Your task to perform on an android device: Go to calendar. Show me events next week Image 0: 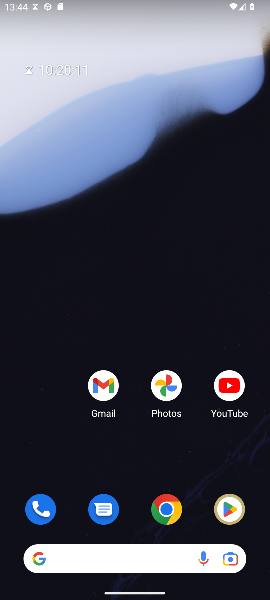
Step 0: press home button
Your task to perform on an android device: Go to calendar. Show me events next week Image 1: 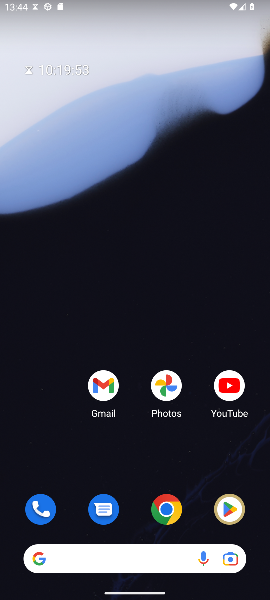
Step 1: drag from (134, 452) to (134, 136)
Your task to perform on an android device: Go to calendar. Show me events next week Image 2: 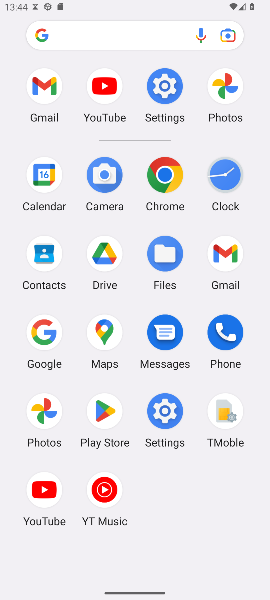
Step 2: click (46, 175)
Your task to perform on an android device: Go to calendar. Show me events next week Image 3: 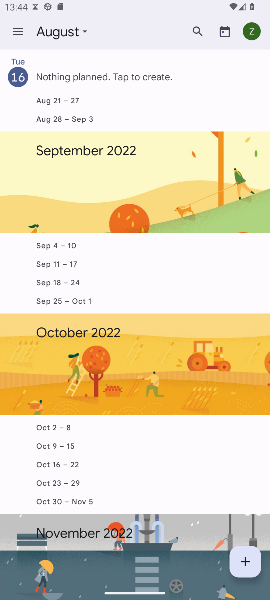
Step 3: click (16, 34)
Your task to perform on an android device: Go to calendar. Show me events next week Image 4: 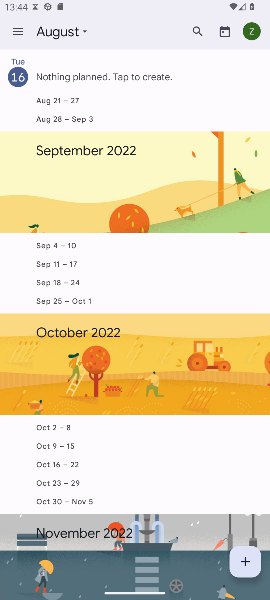
Step 4: click (11, 31)
Your task to perform on an android device: Go to calendar. Show me events next week Image 5: 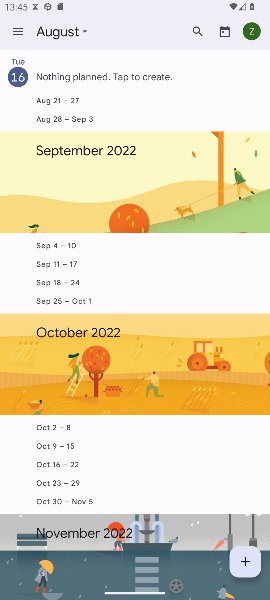
Step 5: click (15, 33)
Your task to perform on an android device: Go to calendar. Show me events next week Image 6: 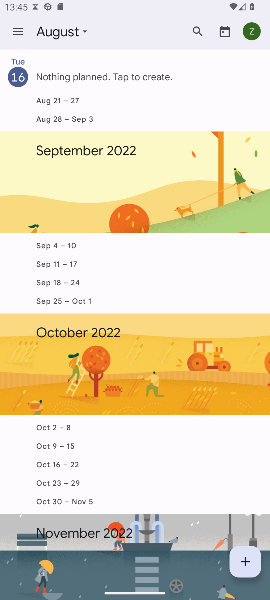
Step 6: click (19, 32)
Your task to perform on an android device: Go to calendar. Show me events next week Image 7: 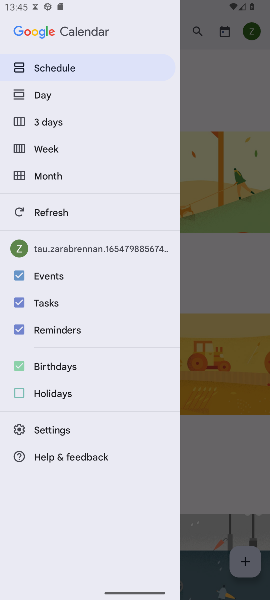
Step 7: click (55, 154)
Your task to perform on an android device: Go to calendar. Show me events next week Image 8: 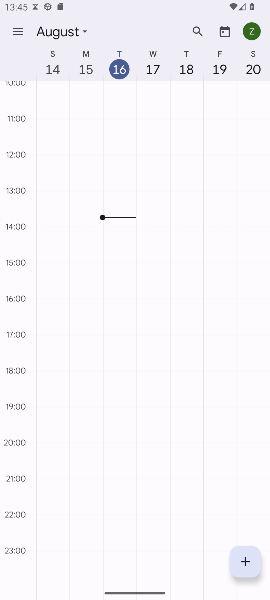
Step 8: task complete